Your task to perform on an android device: delete the emails in spam in the gmail app Image 0: 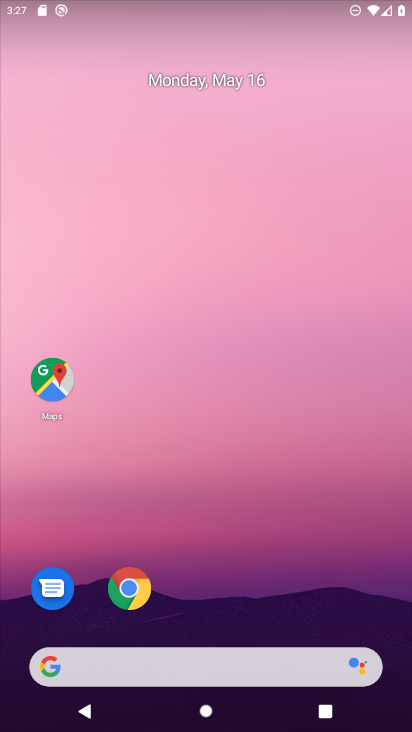
Step 0: drag from (354, 630) to (304, 16)
Your task to perform on an android device: delete the emails in spam in the gmail app Image 1: 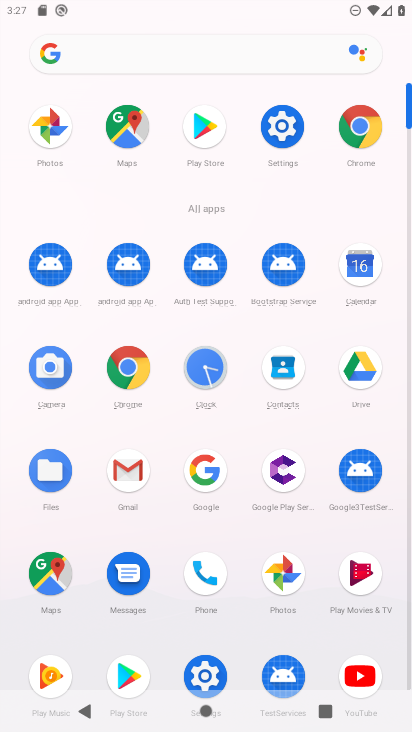
Step 1: click (121, 477)
Your task to perform on an android device: delete the emails in spam in the gmail app Image 2: 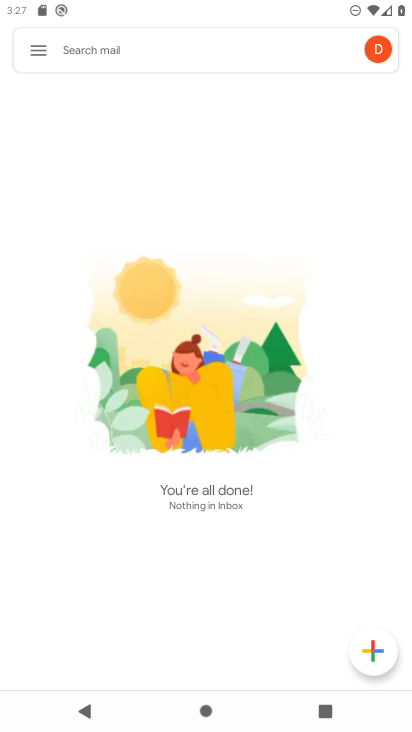
Step 2: click (38, 49)
Your task to perform on an android device: delete the emails in spam in the gmail app Image 3: 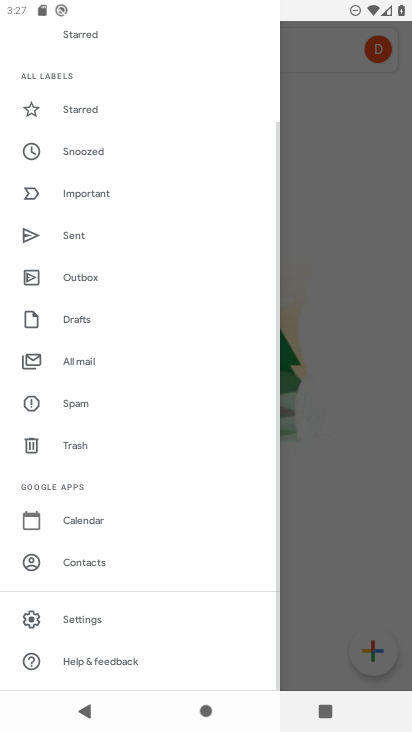
Step 3: click (89, 406)
Your task to perform on an android device: delete the emails in spam in the gmail app Image 4: 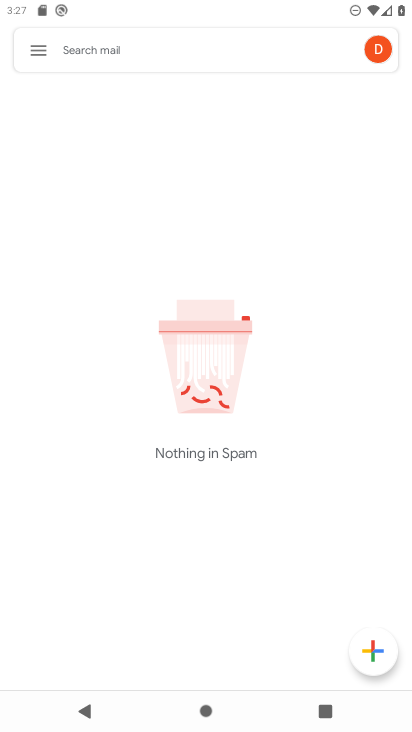
Step 4: task complete